Your task to perform on an android device: Open Google Chrome and open the bookmarks view Image 0: 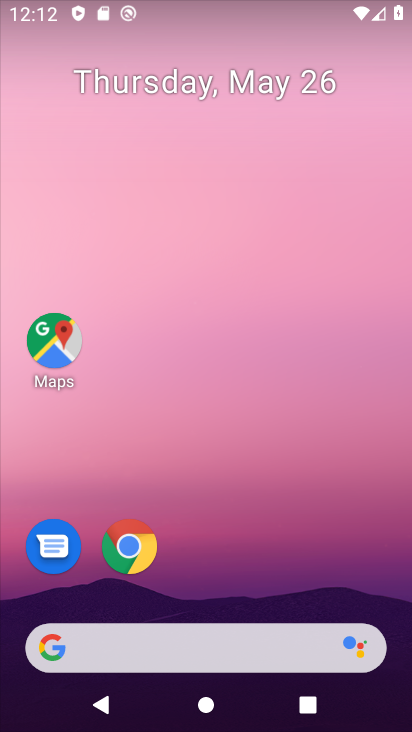
Step 0: drag from (388, 585) to (268, 62)
Your task to perform on an android device: Open Google Chrome and open the bookmarks view Image 1: 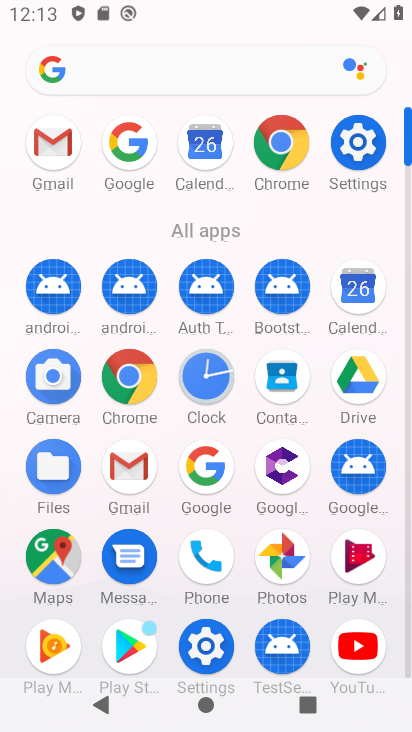
Step 1: click (150, 387)
Your task to perform on an android device: Open Google Chrome and open the bookmarks view Image 2: 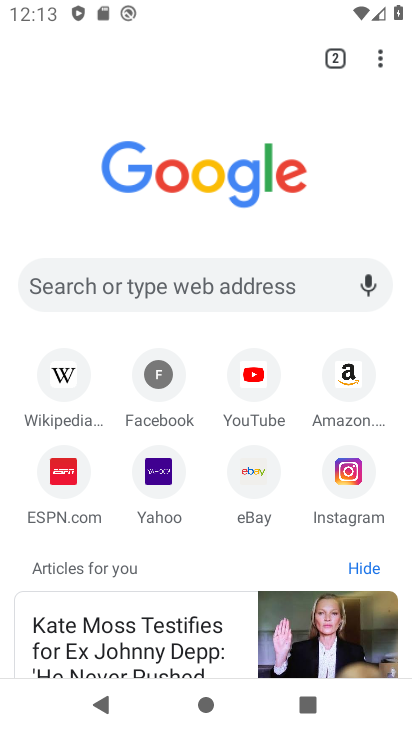
Step 2: click (383, 51)
Your task to perform on an android device: Open Google Chrome and open the bookmarks view Image 3: 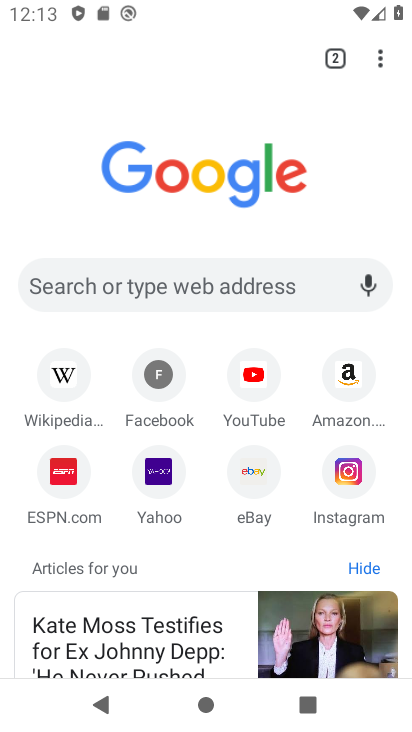
Step 3: click (381, 50)
Your task to perform on an android device: Open Google Chrome and open the bookmarks view Image 4: 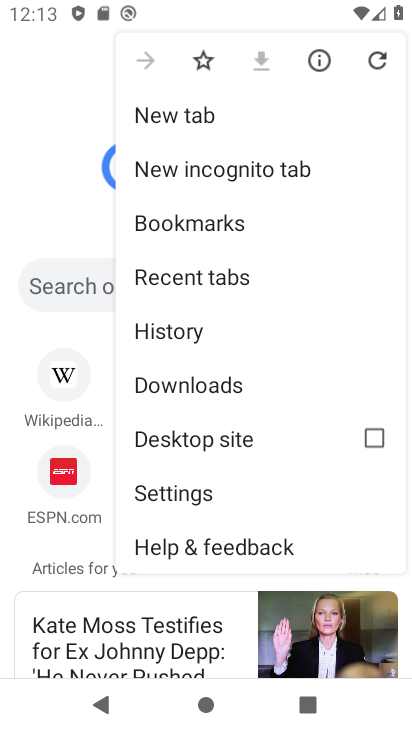
Step 4: click (242, 220)
Your task to perform on an android device: Open Google Chrome and open the bookmarks view Image 5: 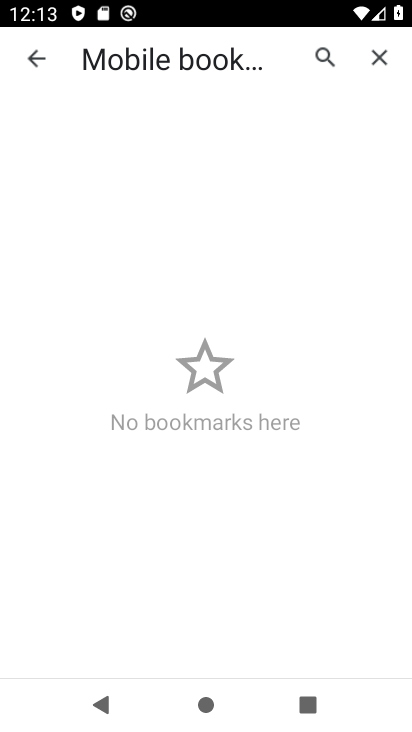
Step 5: task complete